Your task to perform on an android device: make emails show in primary in the gmail app Image 0: 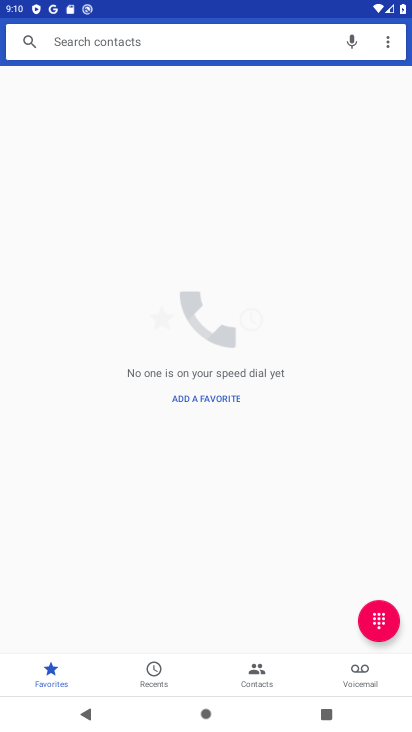
Step 0: press home button
Your task to perform on an android device: make emails show in primary in the gmail app Image 1: 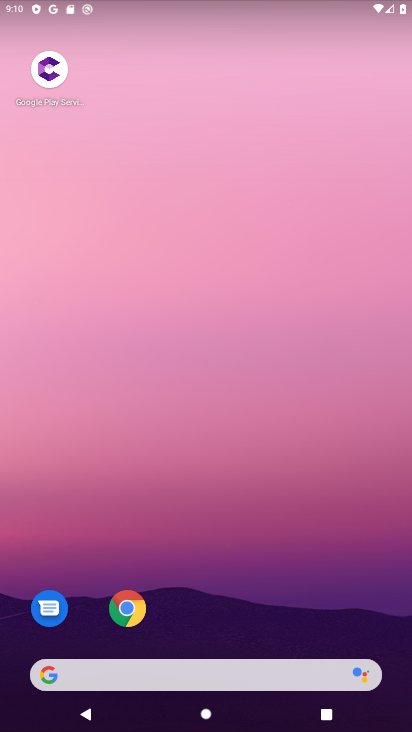
Step 1: drag from (262, 573) to (228, 68)
Your task to perform on an android device: make emails show in primary in the gmail app Image 2: 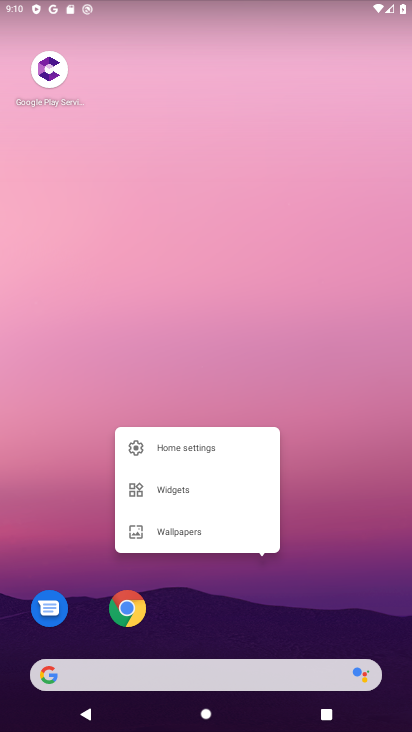
Step 2: click (332, 500)
Your task to perform on an android device: make emails show in primary in the gmail app Image 3: 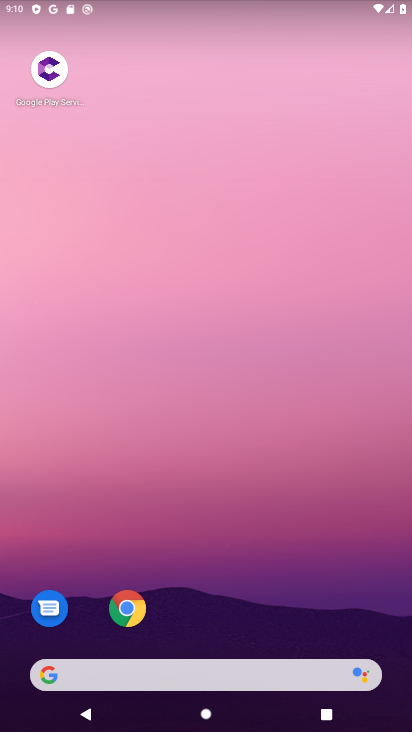
Step 3: drag from (290, 617) to (114, 0)
Your task to perform on an android device: make emails show in primary in the gmail app Image 4: 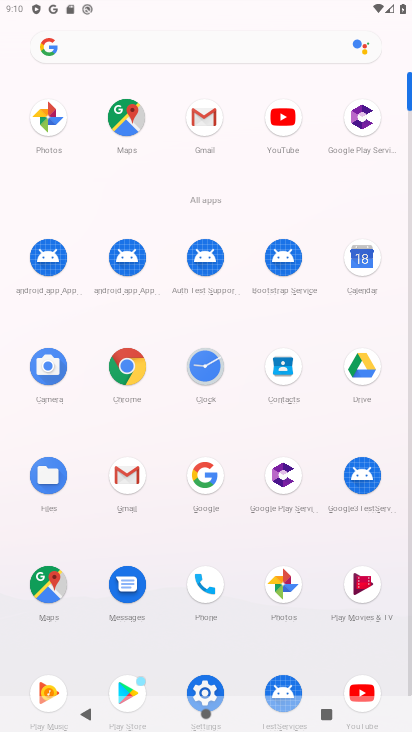
Step 4: click (207, 151)
Your task to perform on an android device: make emails show in primary in the gmail app Image 5: 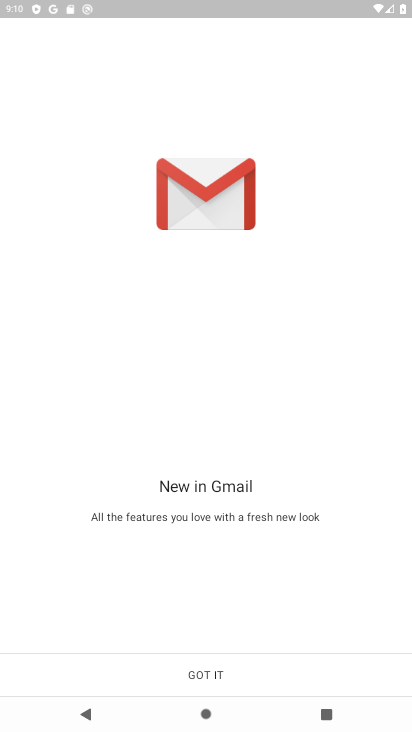
Step 5: click (195, 684)
Your task to perform on an android device: make emails show in primary in the gmail app Image 6: 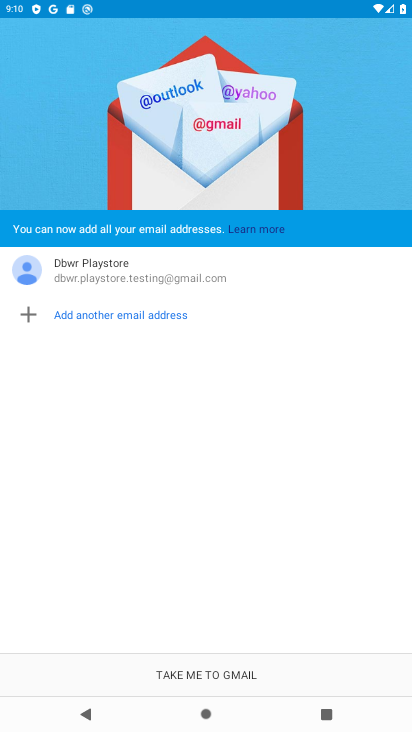
Step 6: click (195, 684)
Your task to perform on an android device: make emails show in primary in the gmail app Image 7: 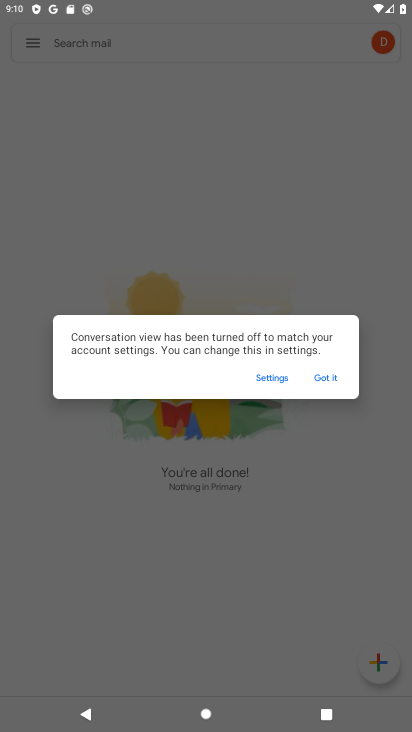
Step 7: click (329, 375)
Your task to perform on an android device: make emails show in primary in the gmail app Image 8: 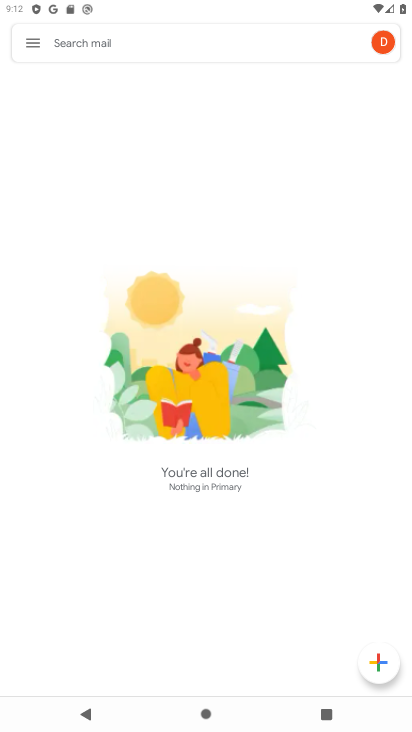
Step 8: task complete